Your task to perform on an android device: Show me popular games on the Play Store Image 0: 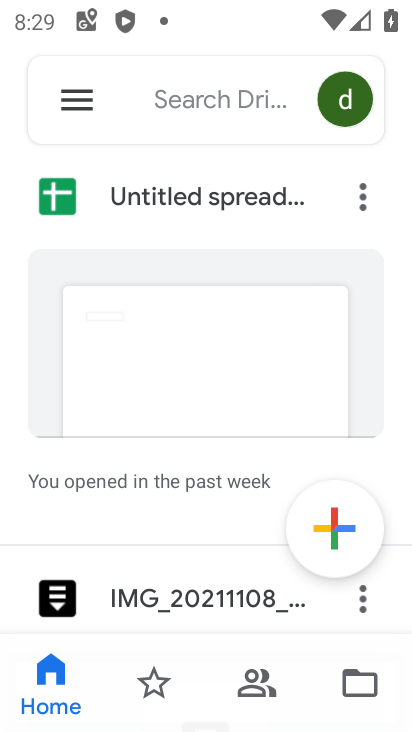
Step 0: press home button
Your task to perform on an android device: Show me popular games on the Play Store Image 1: 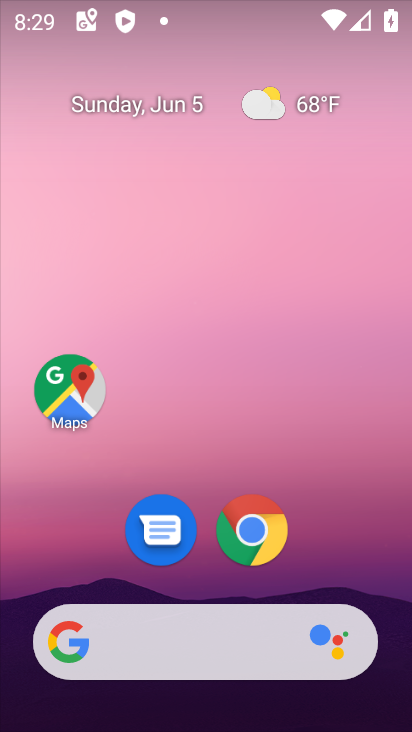
Step 1: drag from (398, 619) to (320, 24)
Your task to perform on an android device: Show me popular games on the Play Store Image 2: 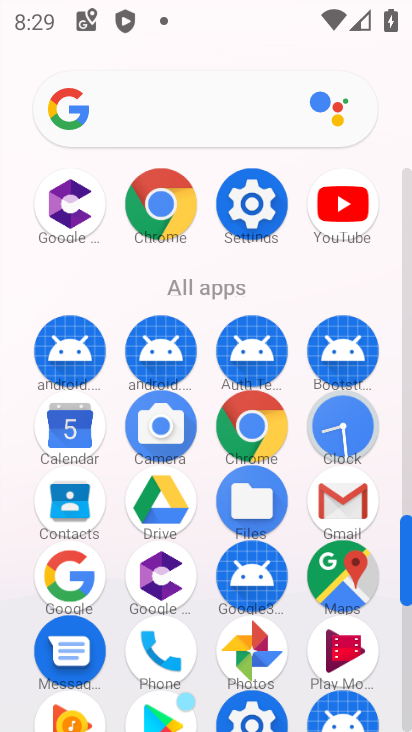
Step 2: click (406, 711)
Your task to perform on an android device: Show me popular games on the Play Store Image 3: 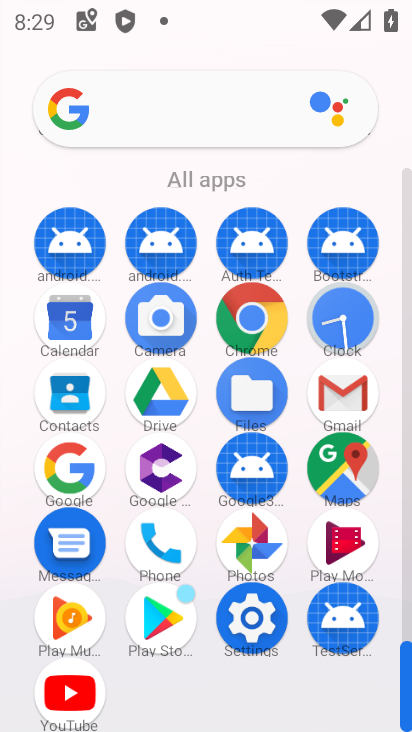
Step 3: click (168, 612)
Your task to perform on an android device: Show me popular games on the Play Store Image 4: 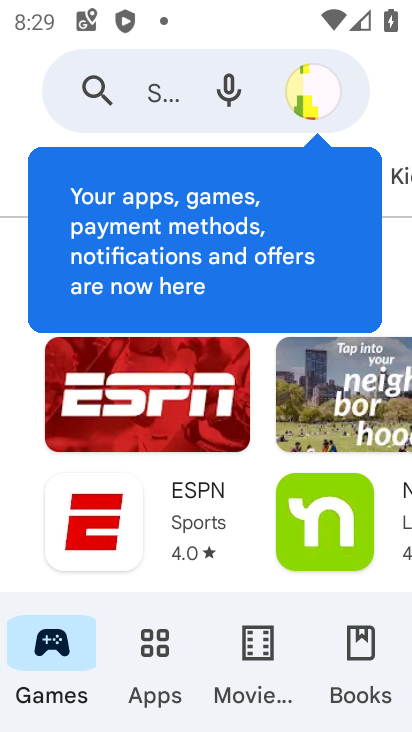
Step 4: drag from (195, 590) to (203, 55)
Your task to perform on an android device: Show me popular games on the Play Store Image 5: 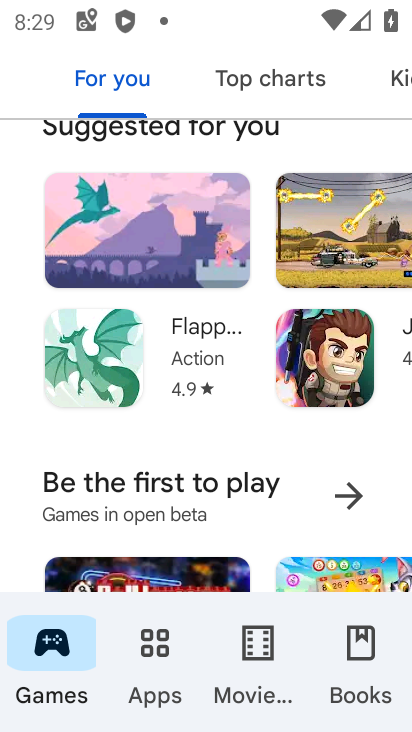
Step 5: drag from (230, 552) to (223, 77)
Your task to perform on an android device: Show me popular games on the Play Store Image 6: 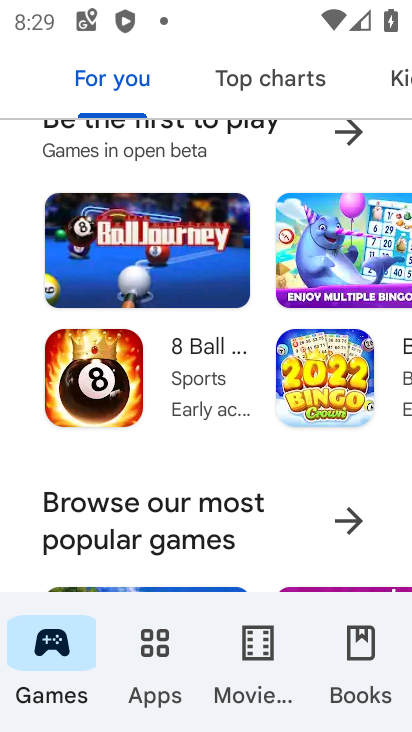
Step 6: drag from (268, 513) to (245, 197)
Your task to perform on an android device: Show me popular games on the Play Store Image 7: 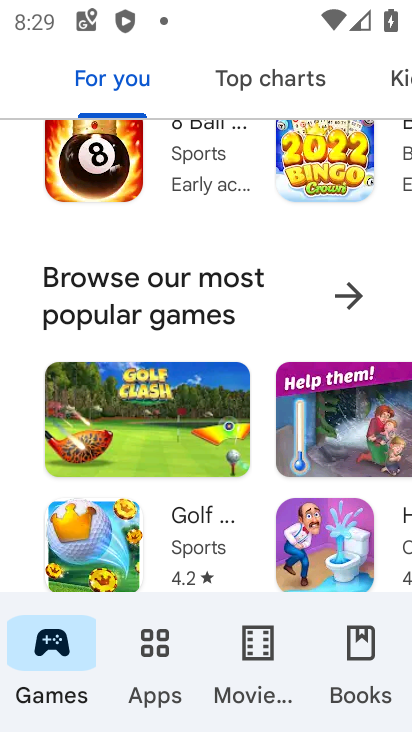
Step 7: click (341, 289)
Your task to perform on an android device: Show me popular games on the Play Store Image 8: 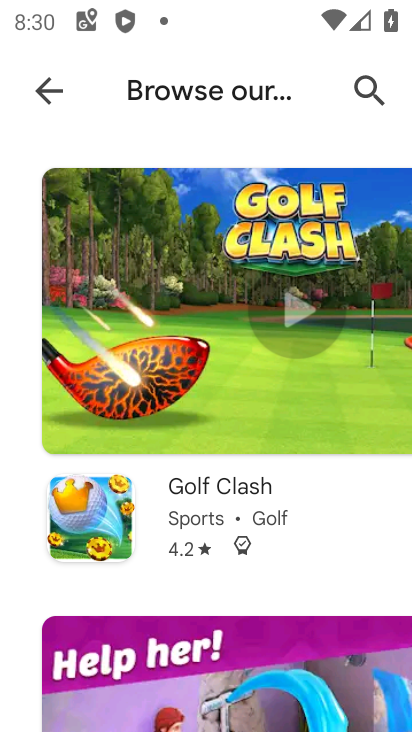
Step 8: task complete